Your task to perform on an android device: see creations saved in the google photos Image 0: 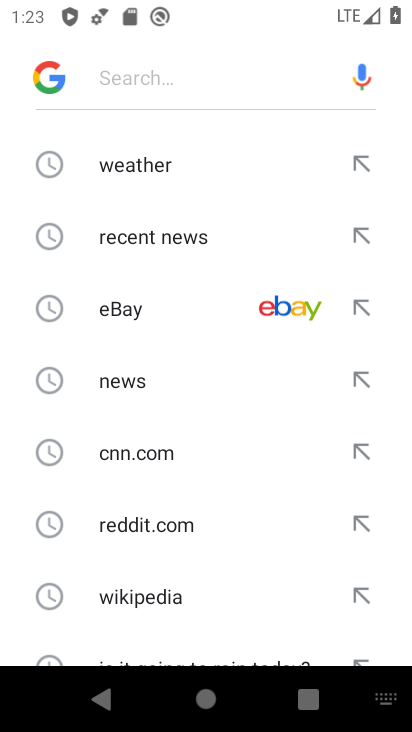
Step 0: press home button
Your task to perform on an android device: see creations saved in the google photos Image 1: 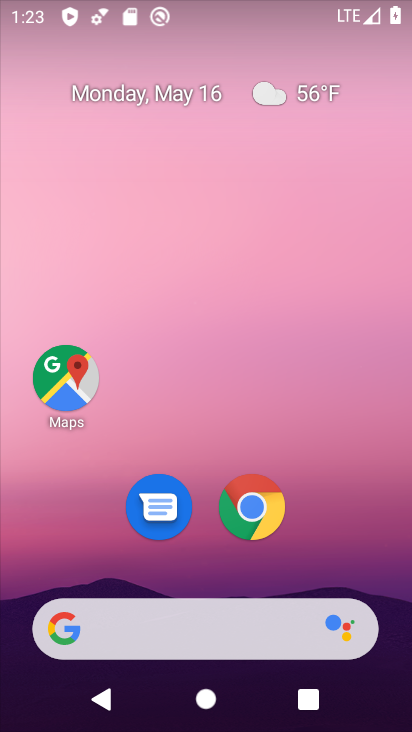
Step 1: drag from (207, 573) to (196, 152)
Your task to perform on an android device: see creations saved in the google photos Image 2: 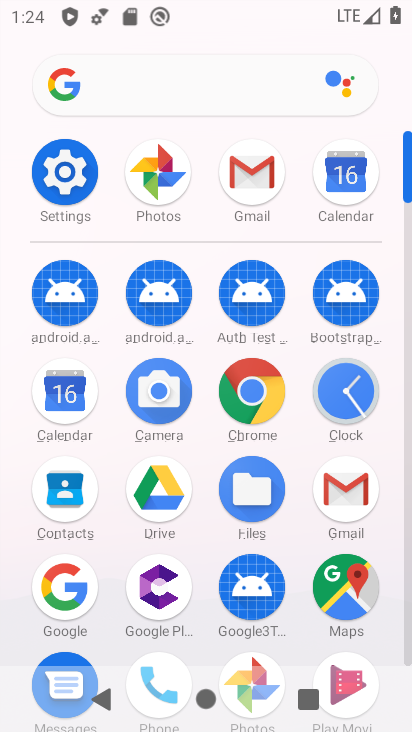
Step 2: click (153, 168)
Your task to perform on an android device: see creations saved in the google photos Image 3: 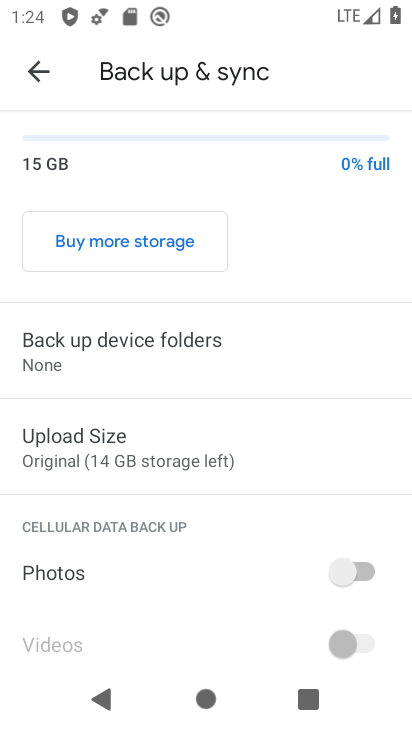
Step 3: drag from (141, 509) to (153, 277)
Your task to perform on an android device: see creations saved in the google photos Image 4: 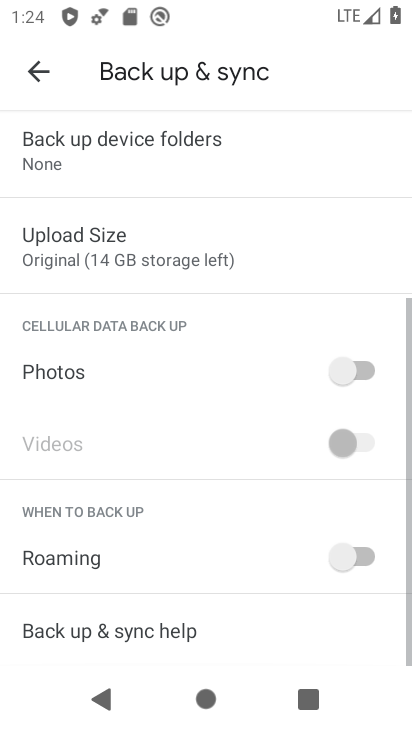
Step 4: drag from (169, 248) to (192, 530)
Your task to perform on an android device: see creations saved in the google photos Image 5: 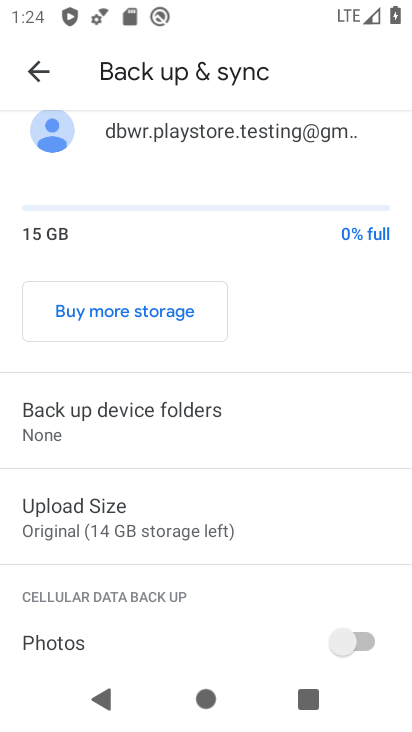
Step 5: drag from (167, 321) to (194, 580)
Your task to perform on an android device: see creations saved in the google photos Image 6: 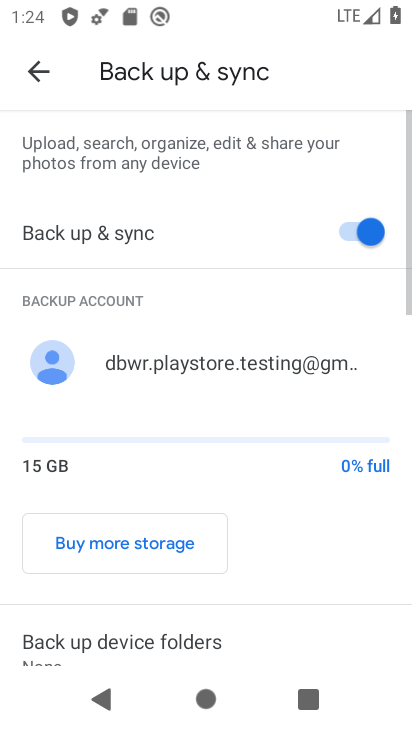
Step 6: drag from (190, 270) to (192, 553)
Your task to perform on an android device: see creations saved in the google photos Image 7: 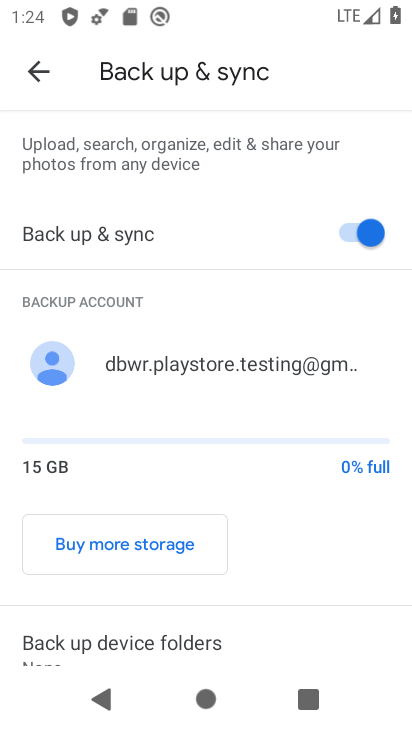
Step 7: click (36, 63)
Your task to perform on an android device: see creations saved in the google photos Image 8: 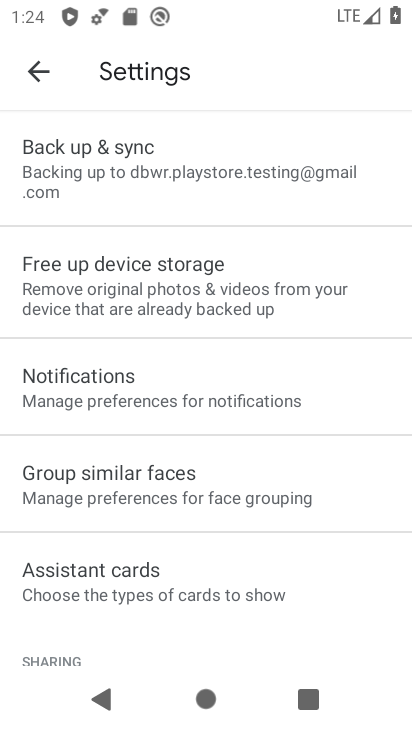
Step 8: click (28, 68)
Your task to perform on an android device: see creations saved in the google photos Image 9: 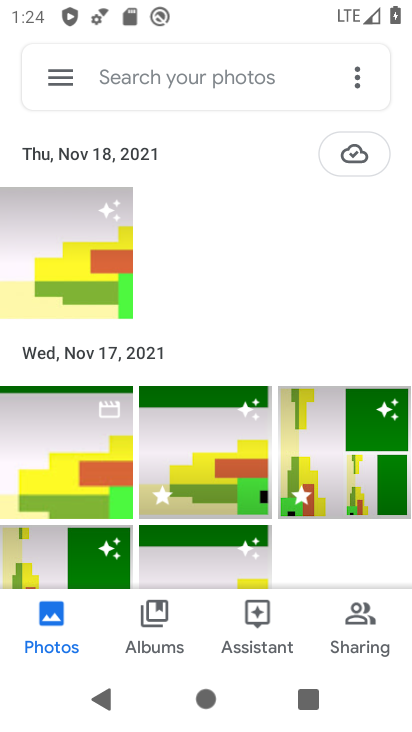
Step 9: click (104, 75)
Your task to perform on an android device: see creations saved in the google photos Image 10: 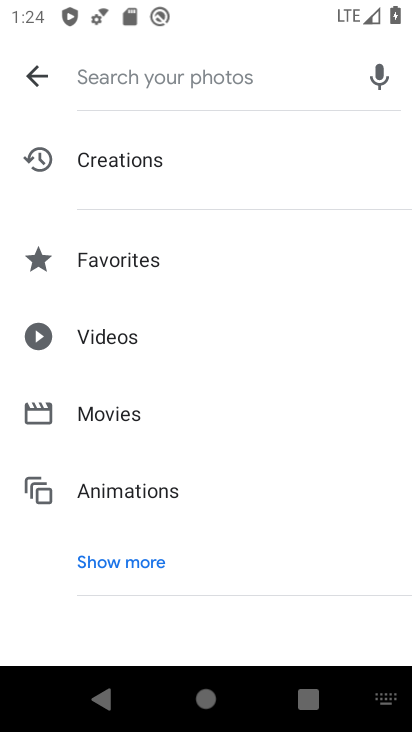
Step 10: click (138, 549)
Your task to perform on an android device: see creations saved in the google photos Image 11: 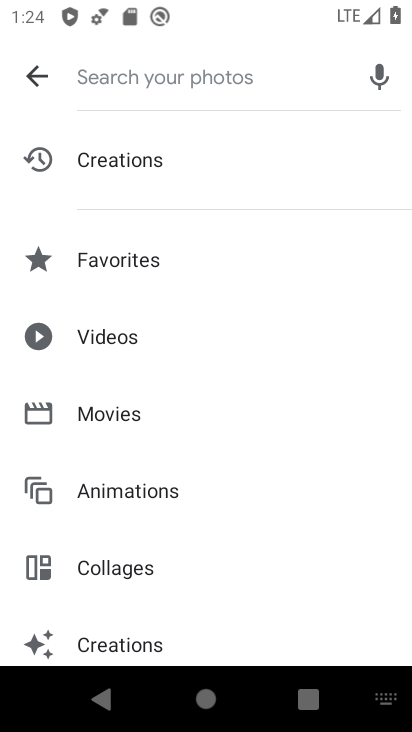
Step 11: click (120, 158)
Your task to perform on an android device: see creations saved in the google photos Image 12: 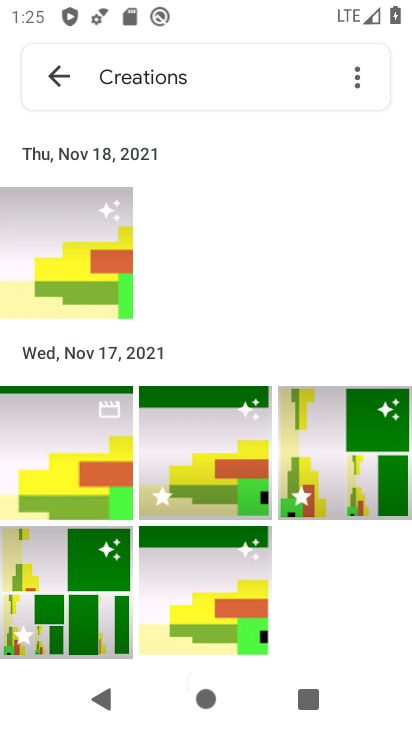
Step 12: task complete